Your task to perform on an android device: see creations saved in the google photos Image 0: 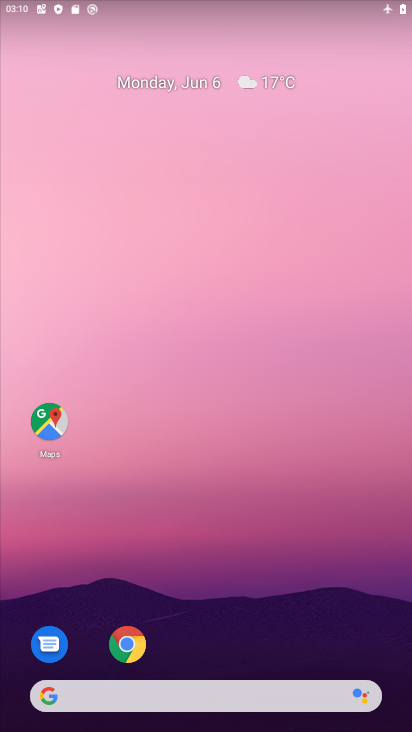
Step 0: drag from (395, 702) to (318, 59)
Your task to perform on an android device: see creations saved in the google photos Image 1: 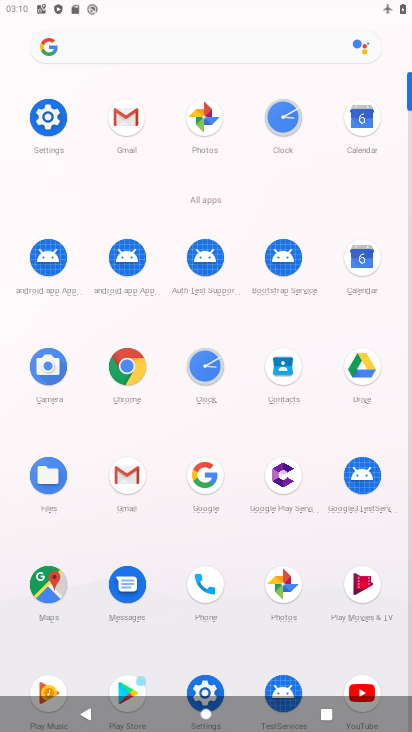
Step 1: click (280, 582)
Your task to perform on an android device: see creations saved in the google photos Image 2: 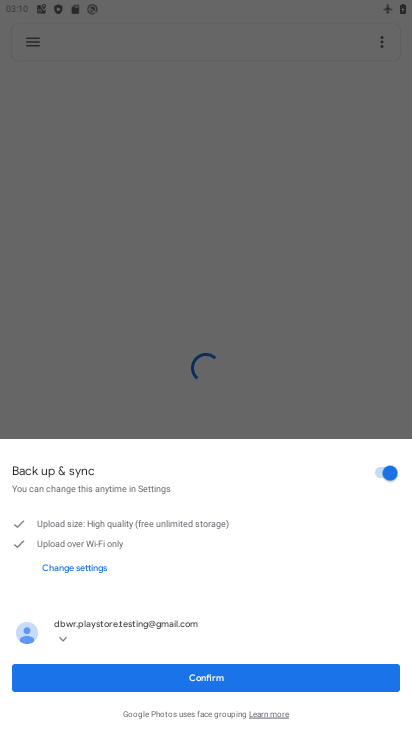
Step 2: click (225, 666)
Your task to perform on an android device: see creations saved in the google photos Image 3: 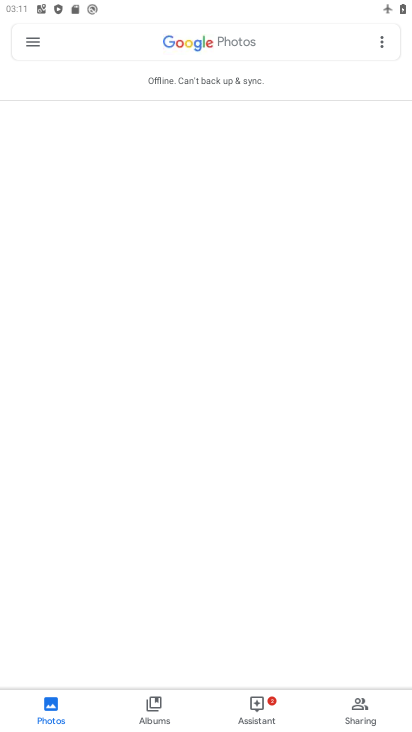
Step 3: click (66, 702)
Your task to perform on an android device: see creations saved in the google photos Image 4: 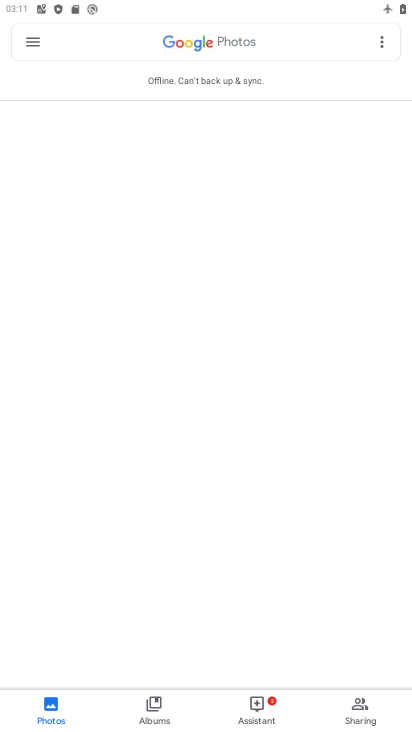
Step 4: task complete